Your task to perform on an android device: Open network settings Image 0: 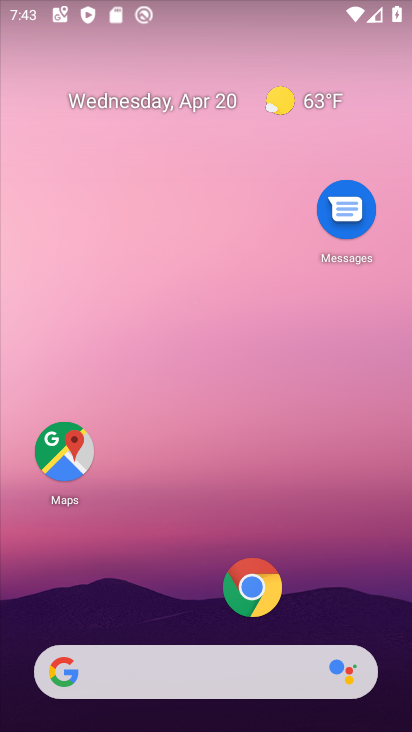
Step 0: drag from (225, 674) to (319, 122)
Your task to perform on an android device: Open network settings Image 1: 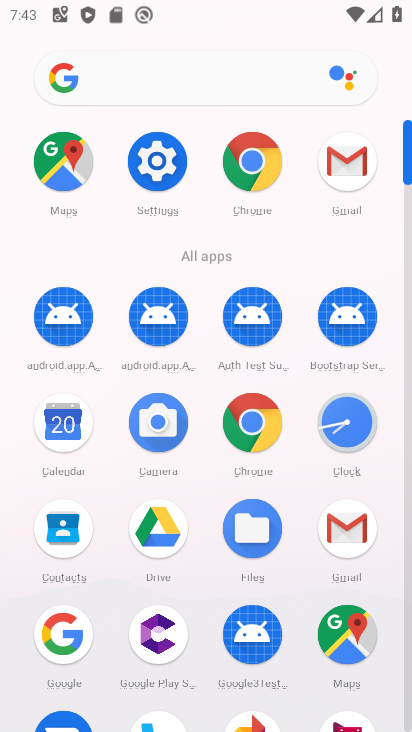
Step 1: click (146, 174)
Your task to perform on an android device: Open network settings Image 2: 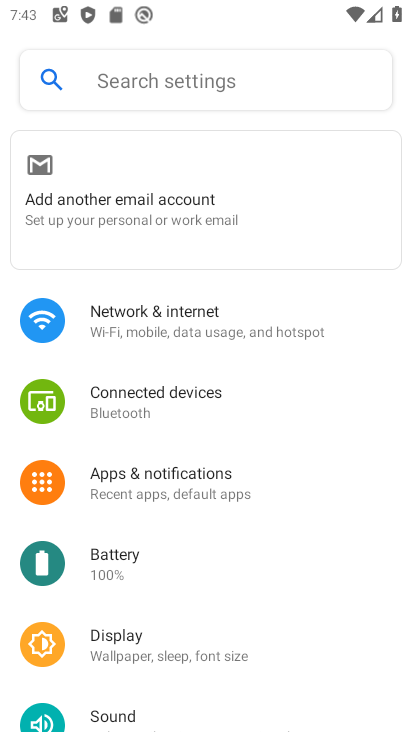
Step 2: click (161, 322)
Your task to perform on an android device: Open network settings Image 3: 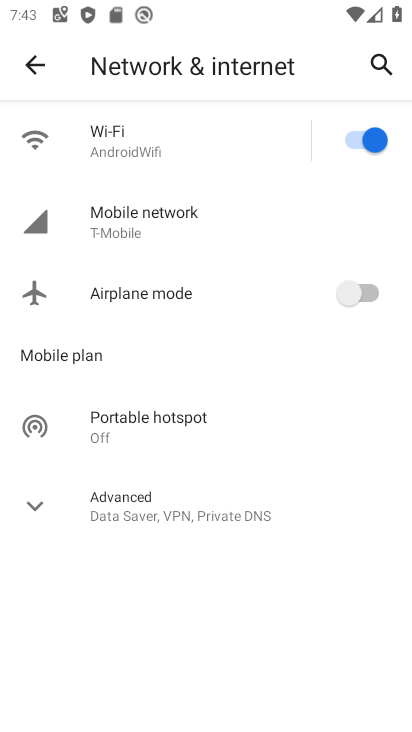
Step 3: click (167, 217)
Your task to perform on an android device: Open network settings Image 4: 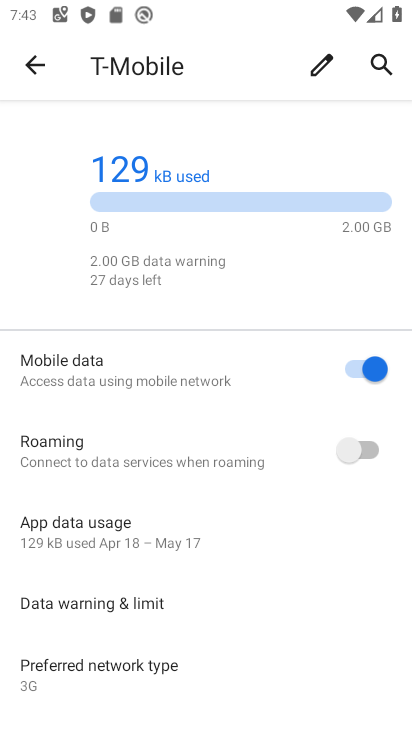
Step 4: task complete